Your task to perform on an android device: all mails in gmail Image 0: 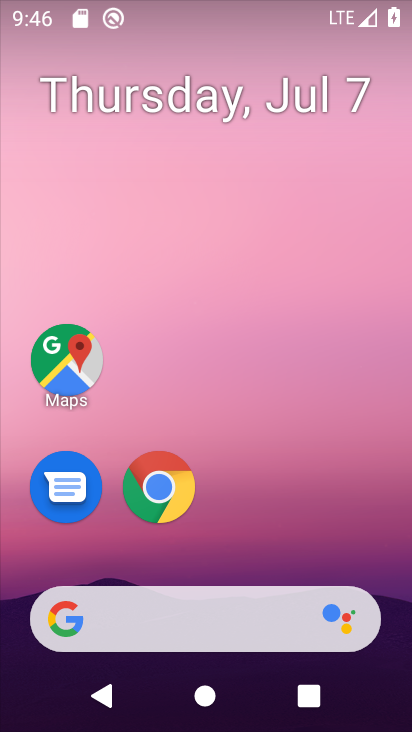
Step 0: drag from (372, 546) to (360, 174)
Your task to perform on an android device: all mails in gmail Image 1: 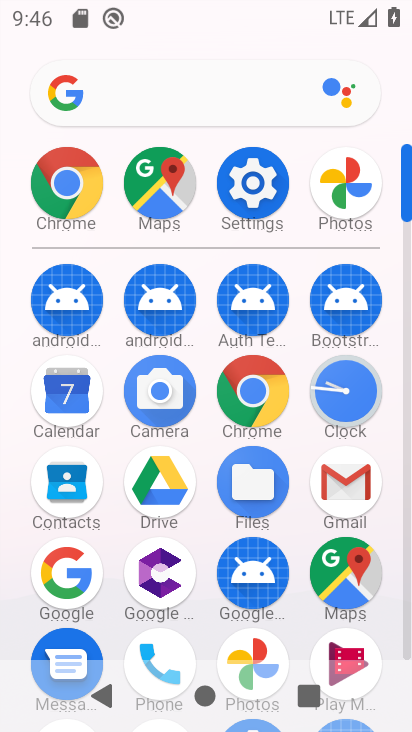
Step 1: click (350, 479)
Your task to perform on an android device: all mails in gmail Image 2: 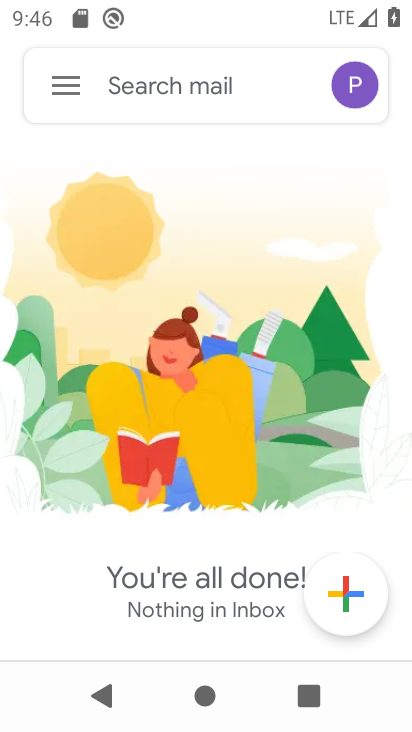
Step 2: click (65, 90)
Your task to perform on an android device: all mails in gmail Image 3: 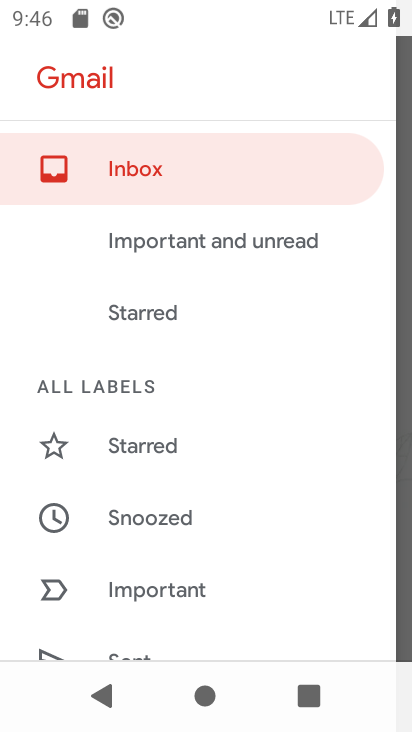
Step 3: drag from (304, 432) to (314, 336)
Your task to perform on an android device: all mails in gmail Image 4: 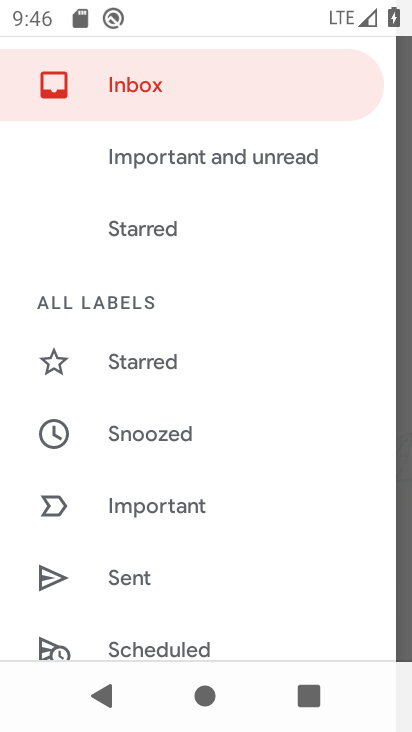
Step 4: drag from (307, 448) to (312, 349)
Your task to perform on an android device: all mails in gmail Image 5: 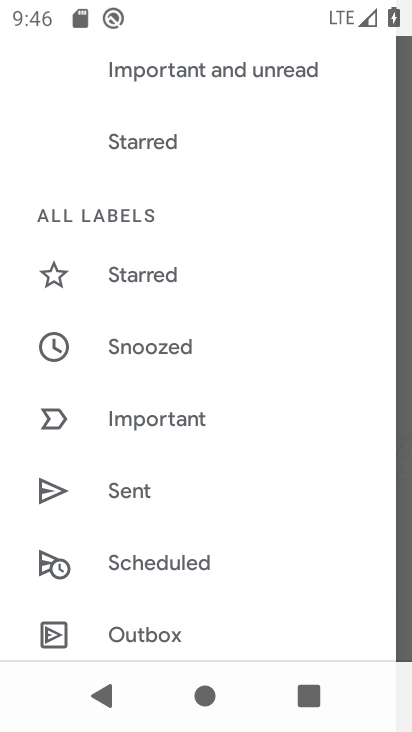
Step 5: drag from (314, 452) to (325, 349)
Your task to perform on an android device: all mails in gmail Image 6: 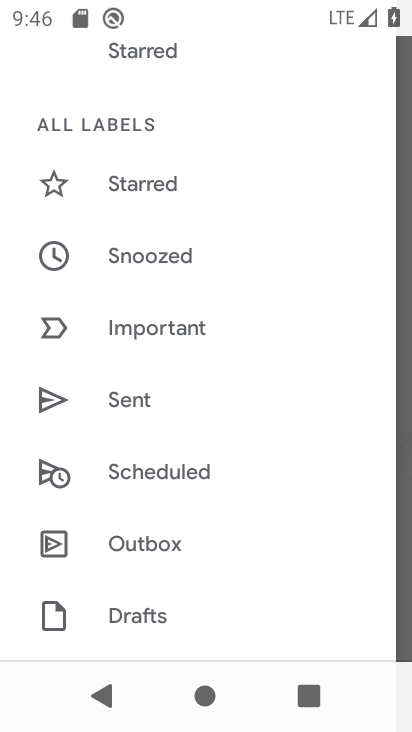
Step 6: drag from (336, 462) to (341, 374)
Your task to perform on an android device: all mails in gmail Image 7: 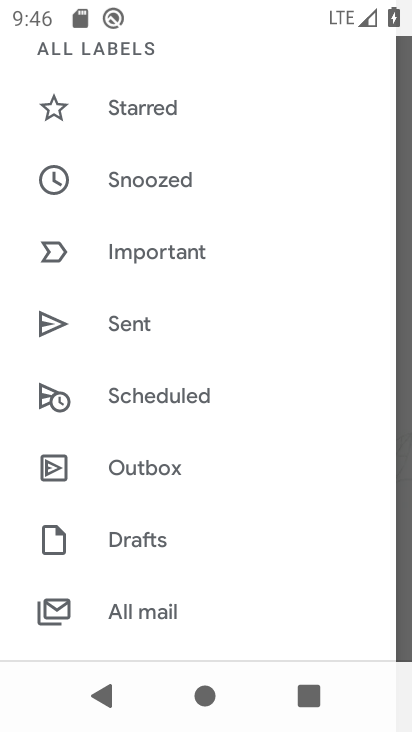
Step 7: drag from (339, 487) to (347, 396)
Your task to perform on an android device: all mails in gmail Image 8: 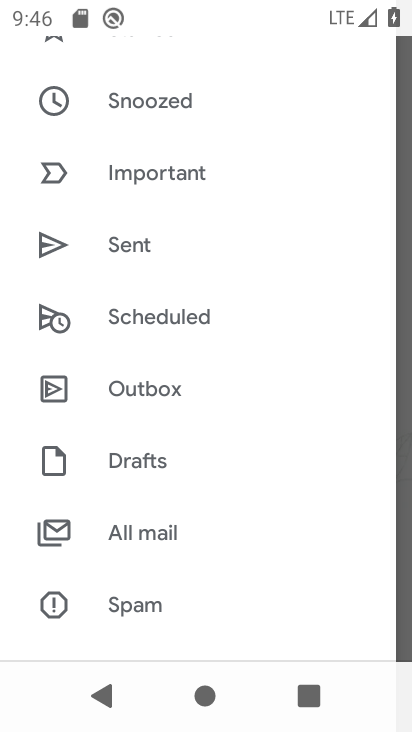
Step 8: drag from (333, 505) to (340, 410)
Your task to perform on an android device: all mails in gmail Image 9: 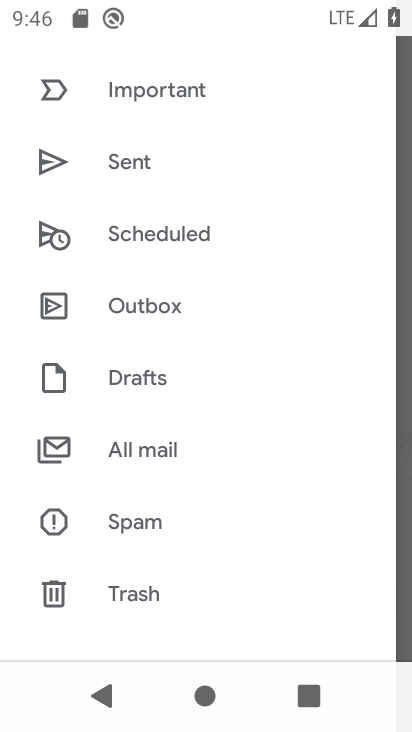
Step 9: drag from (324, 518) to (331, 435)
Your task to perform on an android device: all mails in gmail Image 10: 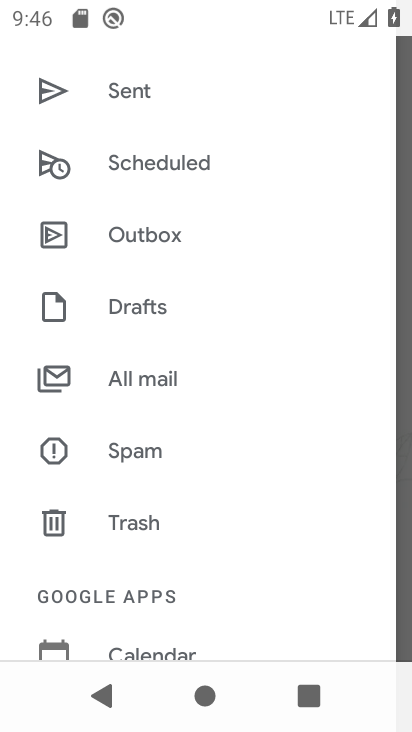
Step 10: drag from (318, 505) to (328, 415)
Your task to perform on an android device: all mails in gmail Image 11: 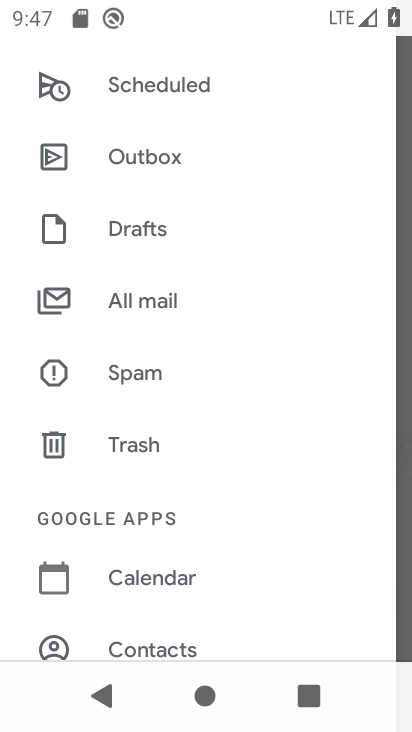
Step 11: drag from (320, 529) to (330, 406)
Your task to perform on an android device: all mails in gmail Image 12: 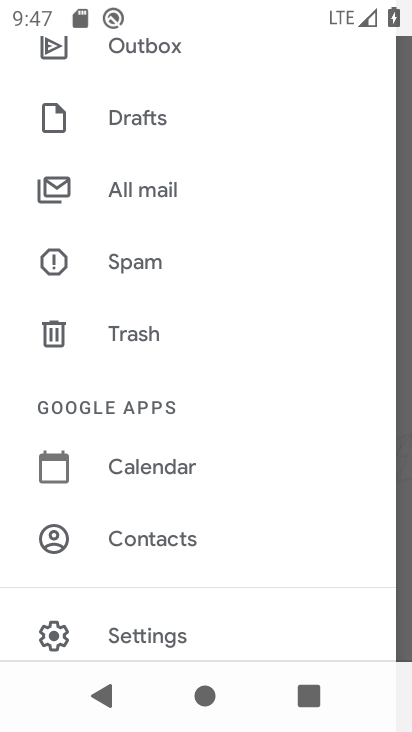
Step 12: drag from (330, 522) to (335, 408)
Your task to perform on an android device: all mails in gmail Image 13: 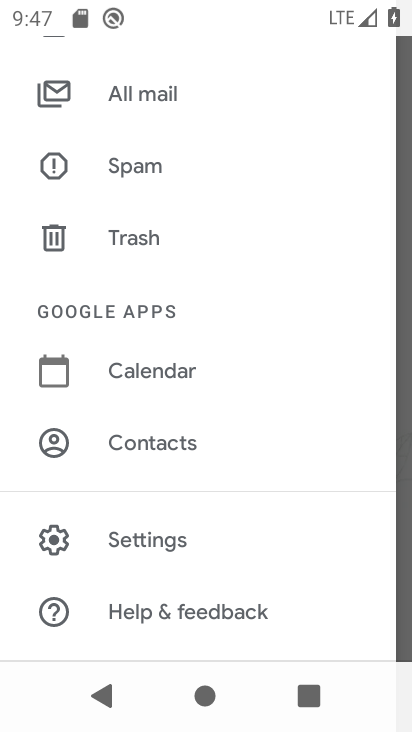
Step 13: drag from (328, 536) to (335, 428)
Your task to perform on an android device: all mails in gmail Image 14: 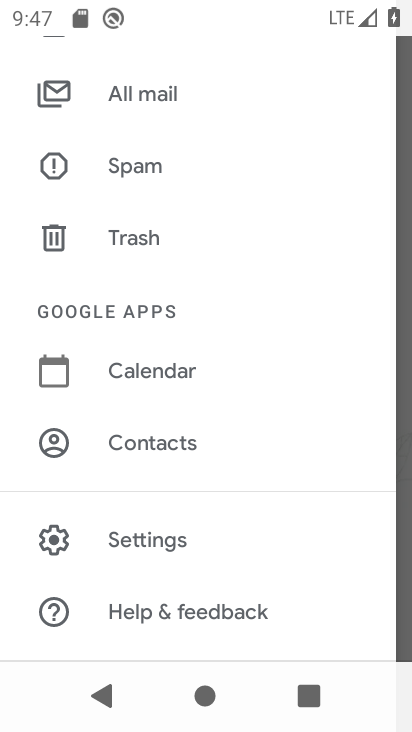
Step 14: drag from (324, 327) to (323, 437)
Your task to perform on an android device: all mails in gmail Image 15: 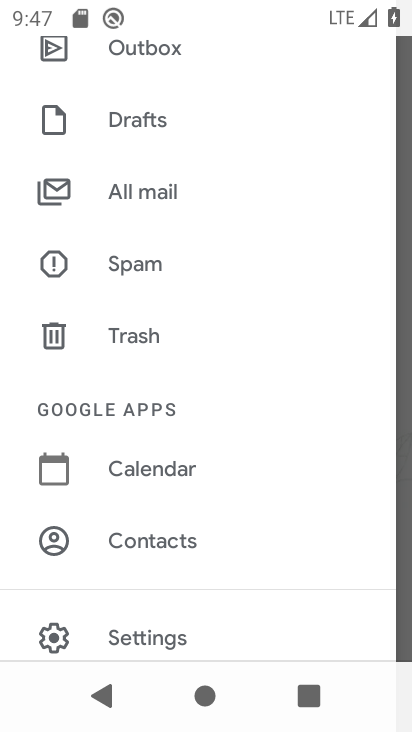
Step 15: drag from (321, 279) to (321, 411)
Your task to perform on an android device: all mails in gmail Image 16: 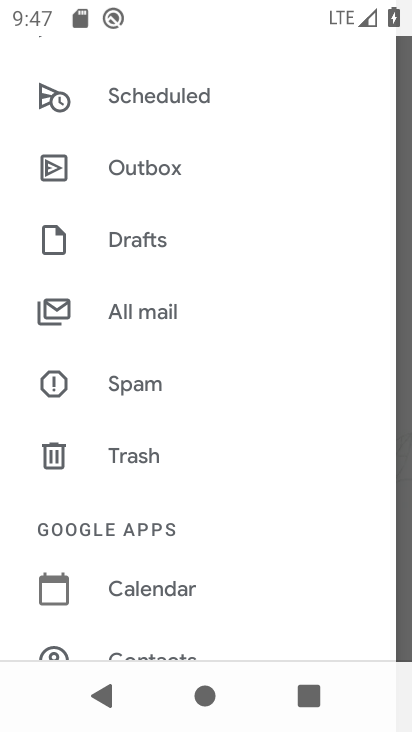
Step 16: drag from (327, 243) to (320, 355)
Your task to perform on an android device: all mails in gmail Image 17: 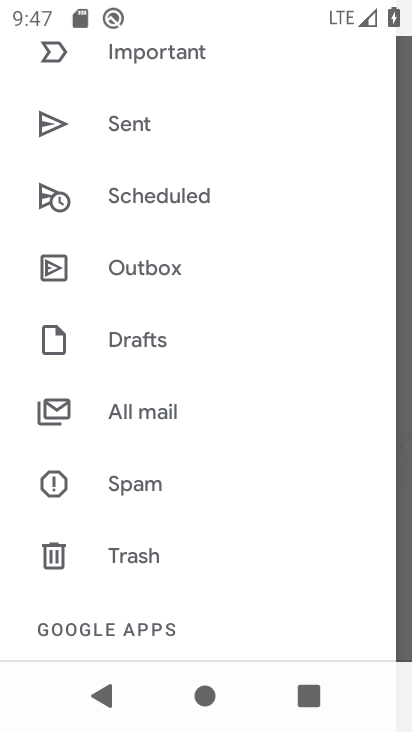
Step 17: click (205, 415)
Your task to perform on an android device: all mails in gmail Image 18: 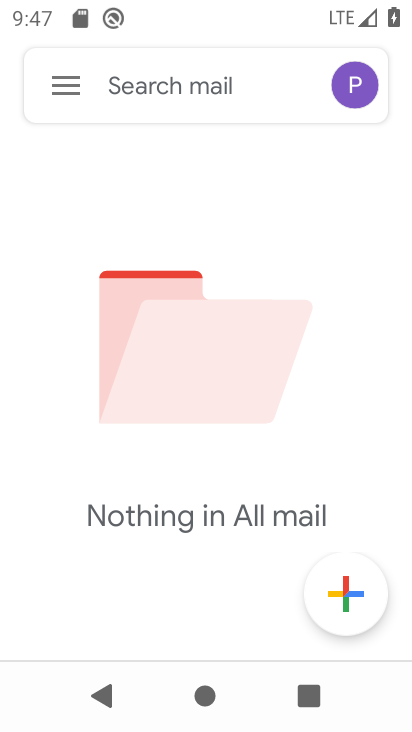
Step 18: task complete